Your task to perform on an android device: Go to Amazon Image 0: 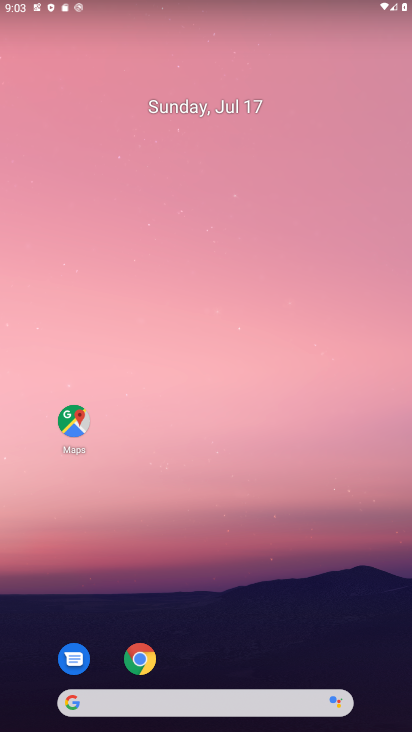
Step 0: click (140, 660)
Your task to perform on an android device: Go to Amazon Image 1: 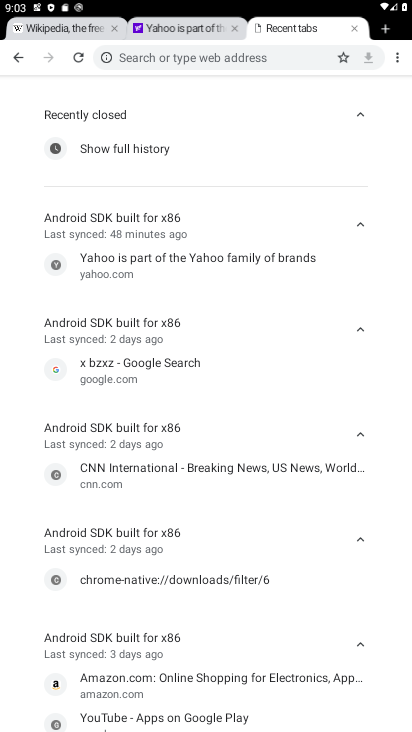
Step 1: click (384, 33)
Your task to perform on an android device: Go to Amazon Image 2: 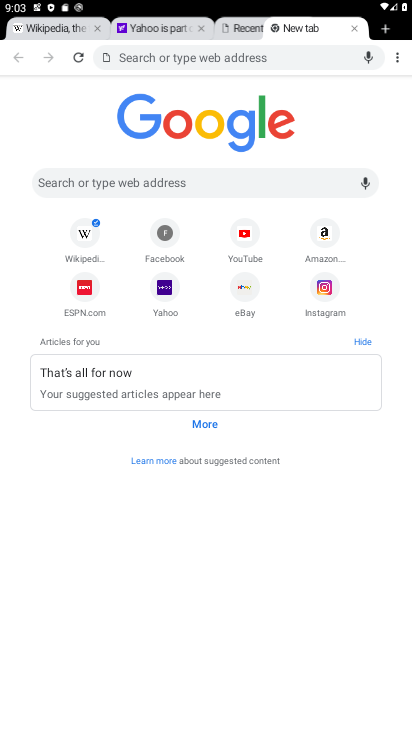
Step 2: click (335, 238)
Your task to perform on an android device: Go to Amazon Image 3: 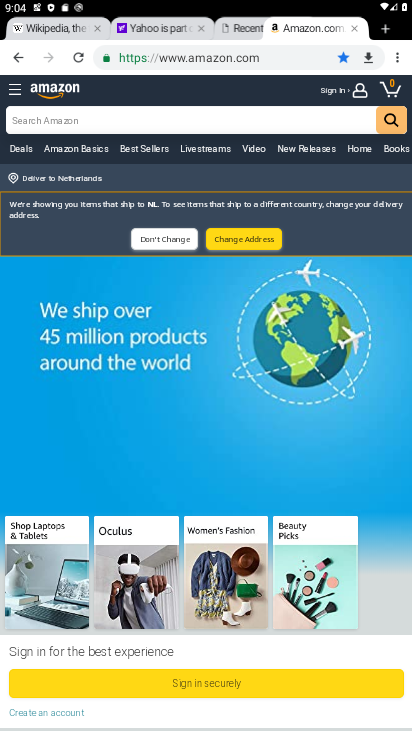
Step 3: task complete